Your task to perform on an android device: Search for Italian restaurants on Maps Image 0: 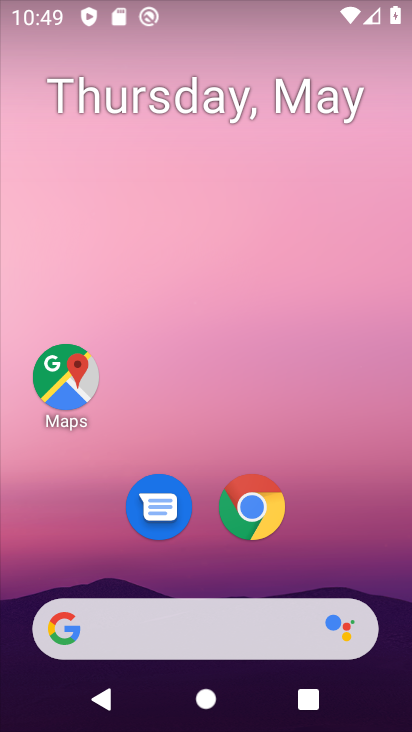
Step 0: drag from (261, 566) to (293, 136)
Your task to perform on an android device: Search for Italian restaurants on Maps Image 1: 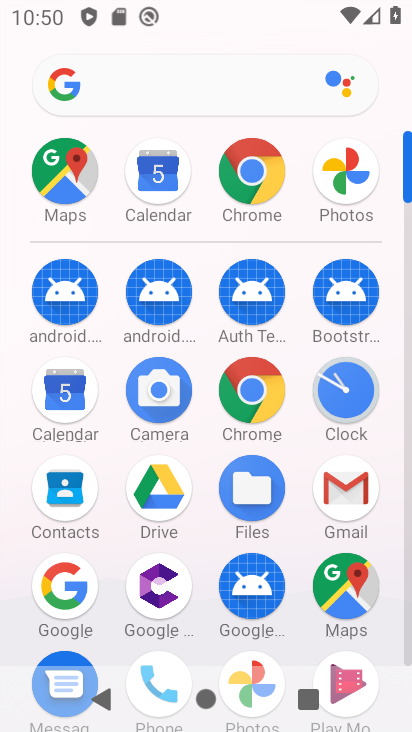
Step 1: drag from (271, 508) to (325, 159)
Your task to perform on an android device: Search for Italian restaurants on Maps Image 2: 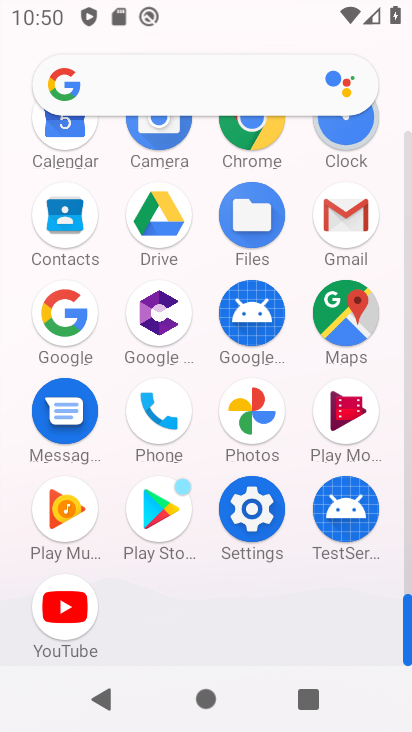
Step 2: click (345, 329)
Your task to perform on an android device: Search for Italian restaurants on Maps Image 3: 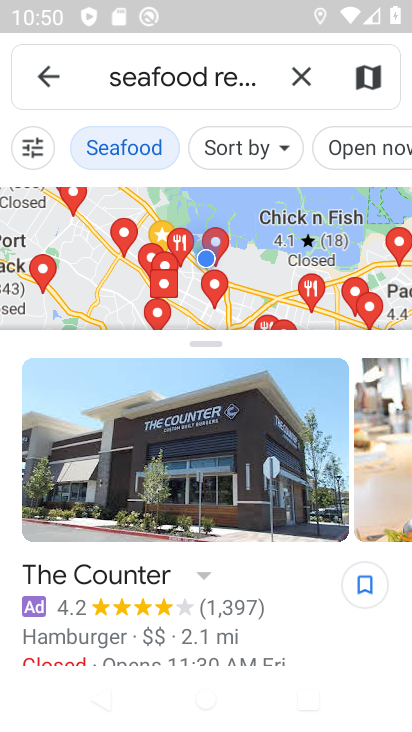
Step 3: click (308, 83)
Your task to perform on an android device: Search for Italian restaurants on Maps Image 4: 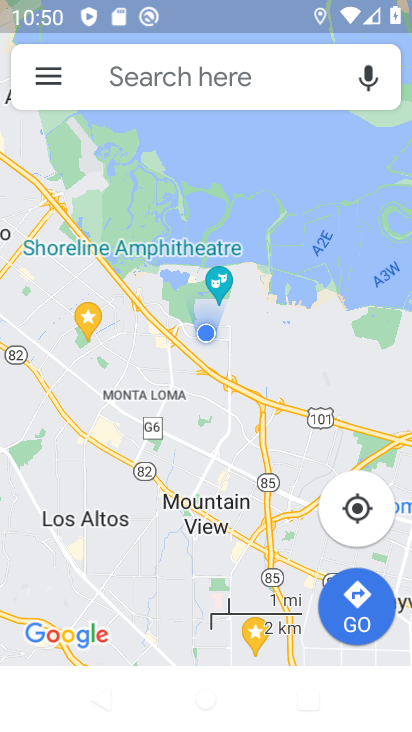
Step 4: click (252, 63)
Your task to perform on an android device: Search for Italian restaurants on Maps Image 5: 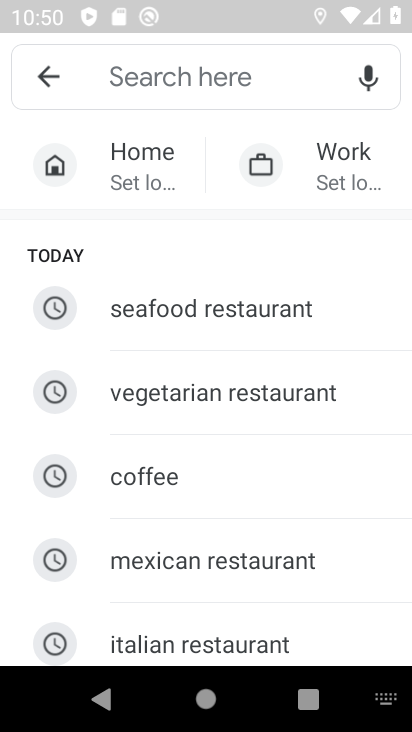
Step 5: click (280, 637)
Your task to perform on an android device: Search for Italian restaurants on Maps Image 6: 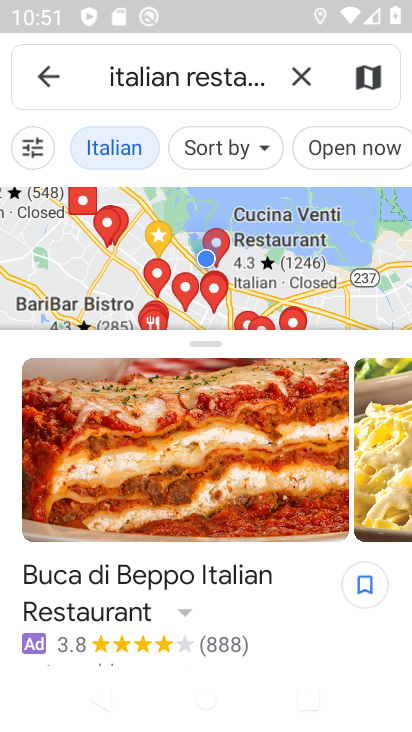
Step 6: task complete